Your task to perform on an android device: check storage Image 0: 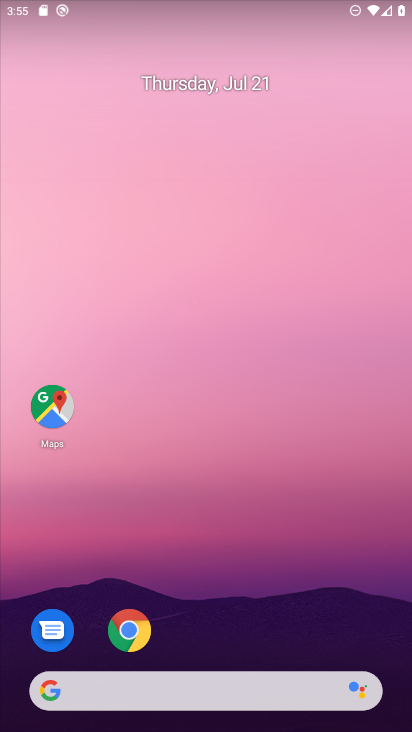
Step 0: drag from (220, 652) to (345, 67)
Your task to perform on an android device: check storage Image 1: 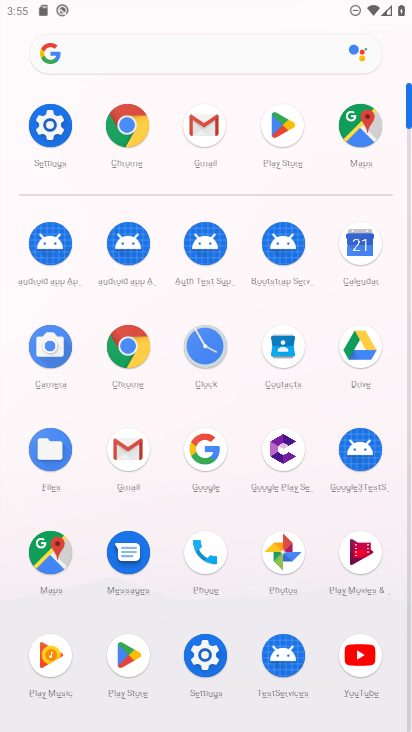
Step 1: click (207, 664)
Your task to perform on an android device: check storage Image 2: 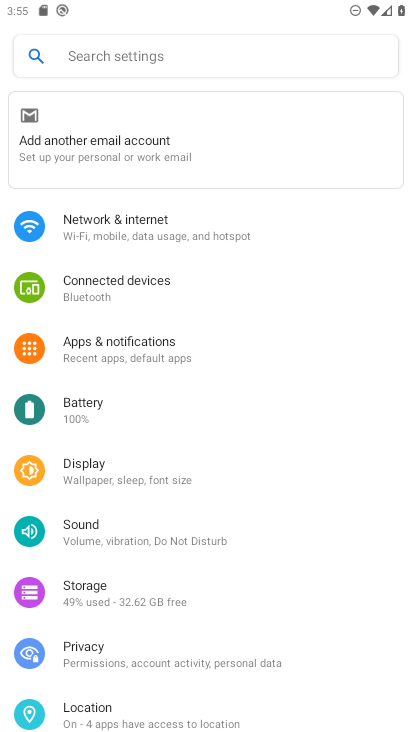
Step 2: drag from (139, 659) to (108, 486)
Your task to perform on an android device: check storage Image 3: 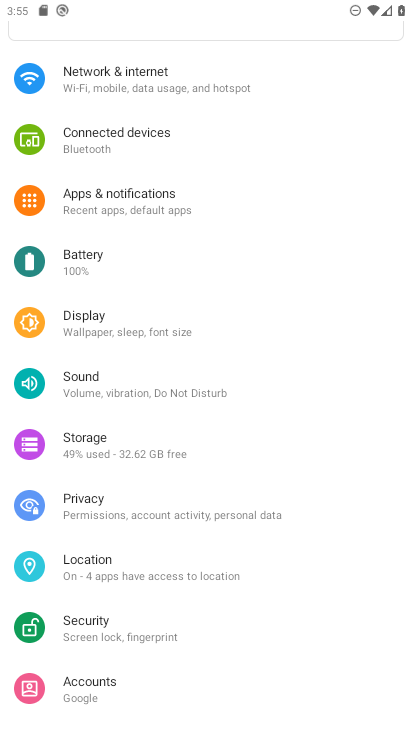
Step 3: click (108, 447)
Your task to perform on an android device: check storage Image 4: 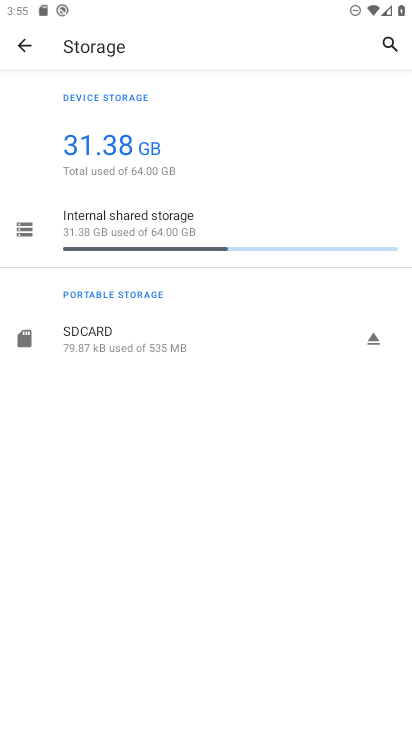
Step 4: click (160, 221)
Your task to perform on an android device: check storage Image 5: 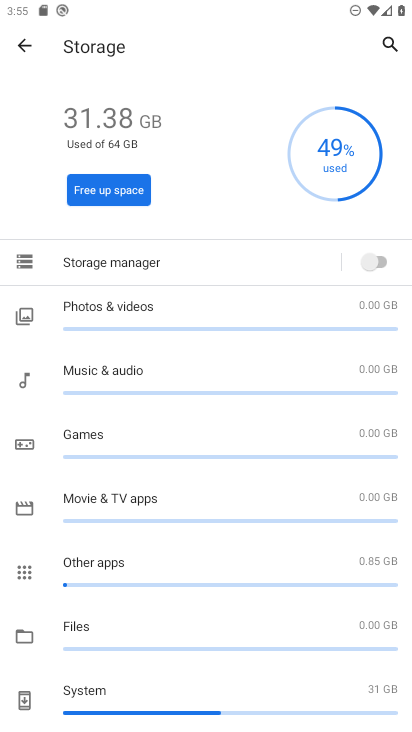
Step 5: task complete